Your task to perform on an android device: Open location settings Image 0: 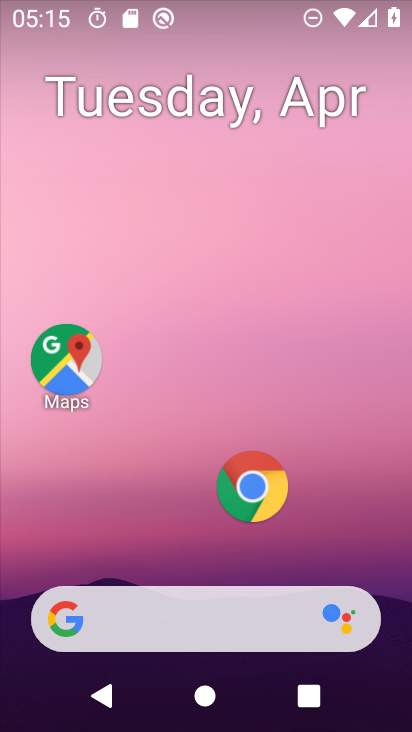
Step 0: click (215, 81)
Your task to perform on an android device: Open location settings Image 1: 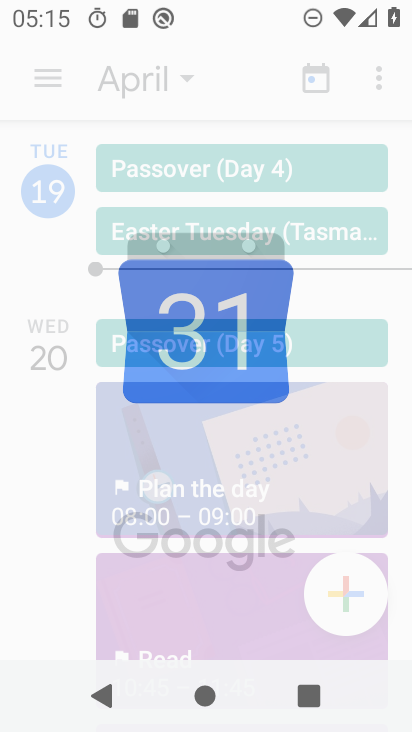
Step 1: drag from (187, 409) to (228, 99)
Your task to perform on an android device: Open location settings Image 2: 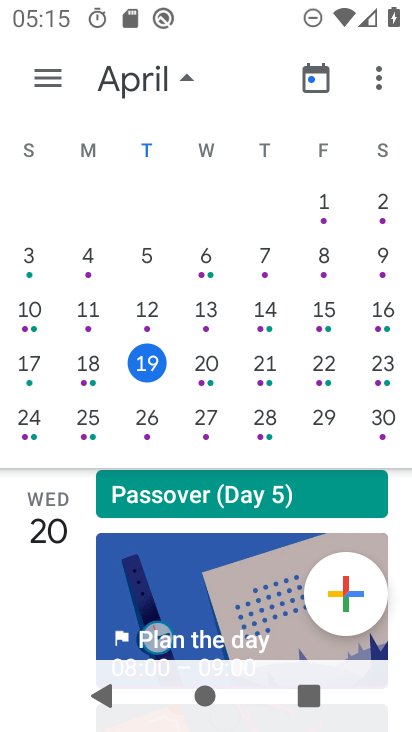
Step 2: press home button
Your task to perform on an android device: Open location settings Image 3: 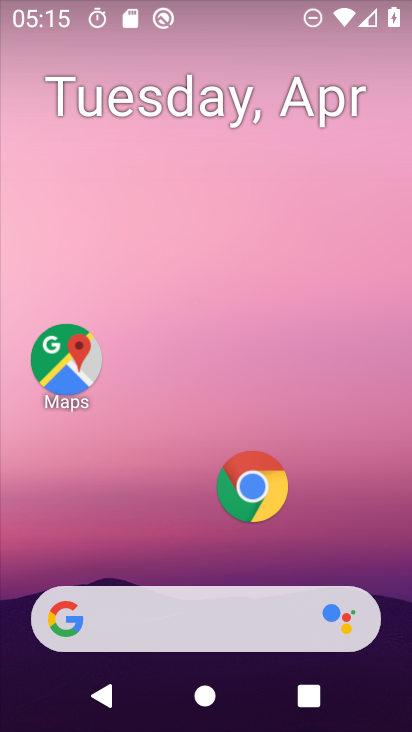
Step 3: drag from (118, 452) to (248, 50)
Your task to perform on an android device: Open location settings Image 4: 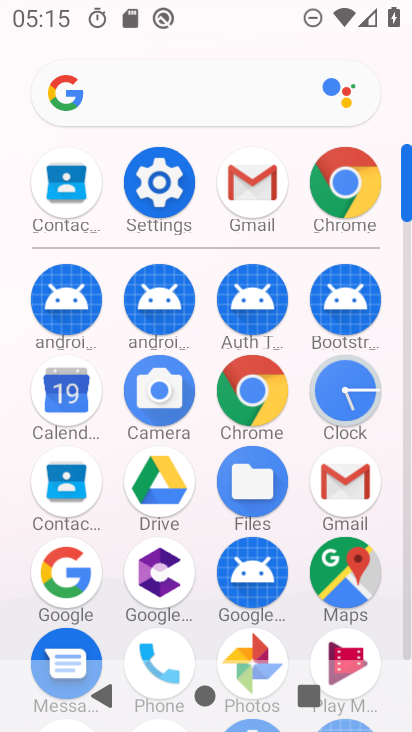
Step 4: click (155, 193)
Your task to perform on an android device: Open location settings Image 5: 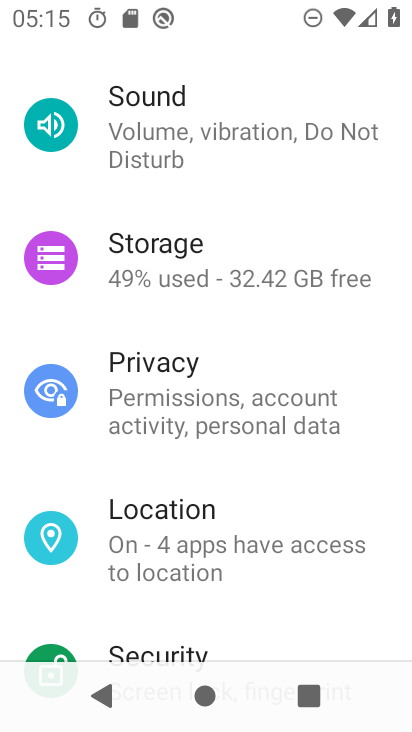
Step 5: click (167, 548)
Your task to perform on an android device: Open location settings Image 6: 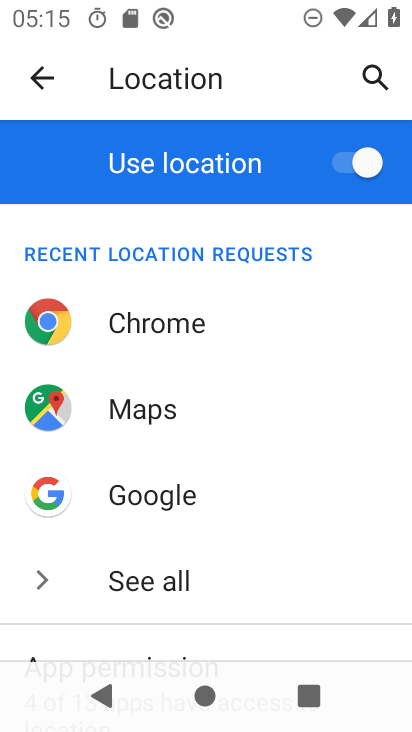
Step 6: task complete